Your task to perform on an android device: Open privacy settings Image 0: 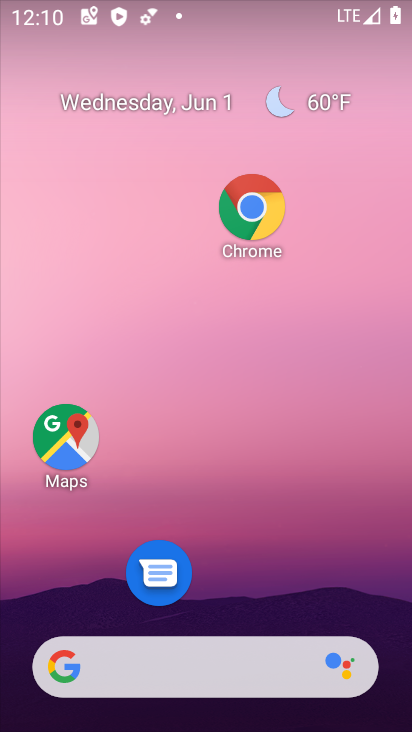
Step 0: drag from (240, 604) to (235, 214)
Your task to perform on an android device: Open privacy settings Image 1: 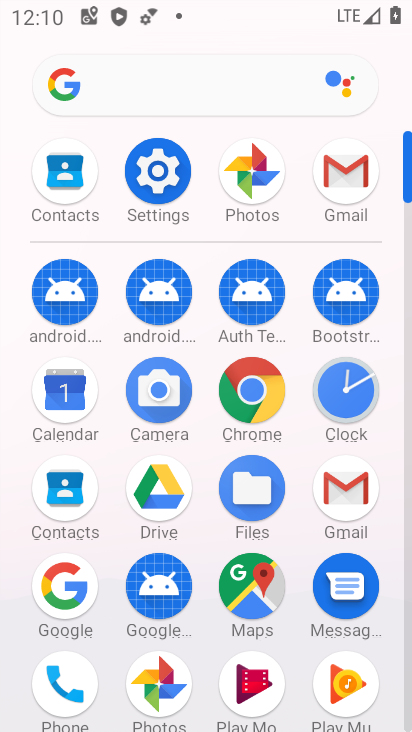
Step 1: click (181, 186)
Your task to perform on an android device: Open privacy settings Image 2: 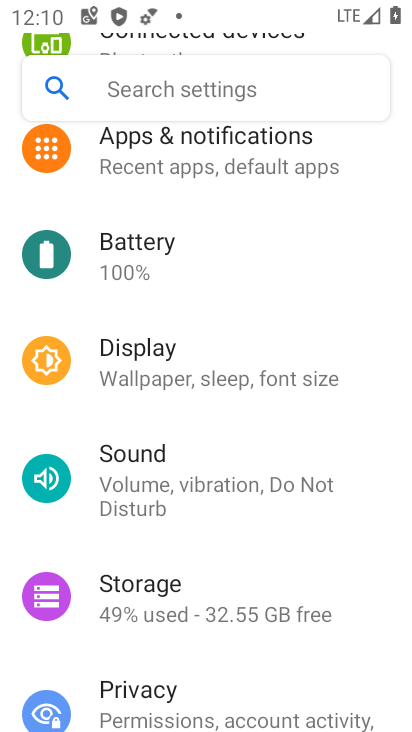
Step 2: click (204, 704)
Your task to perform on an android device: Open privacy settings Image 3: 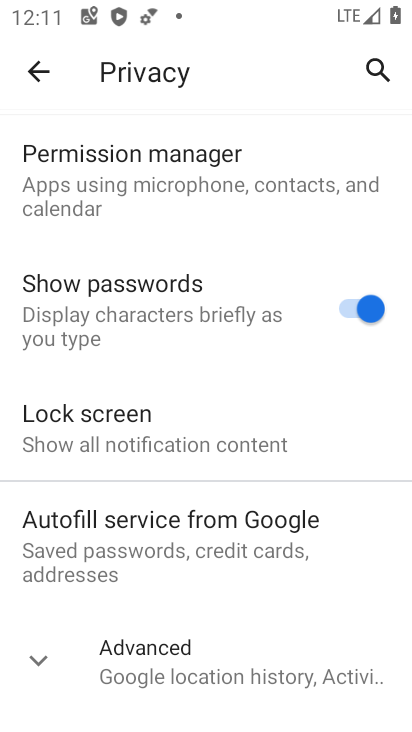
Step 3: task complete